Your task to perform on an android device: Show me popular games on the Play Store Image 0: 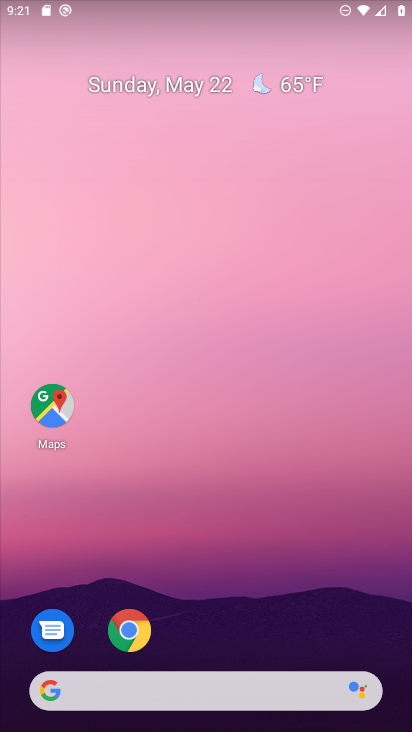
Step 0: press home button
Your task to perform on an android device: Show me popular games on the Play Store Image 1: 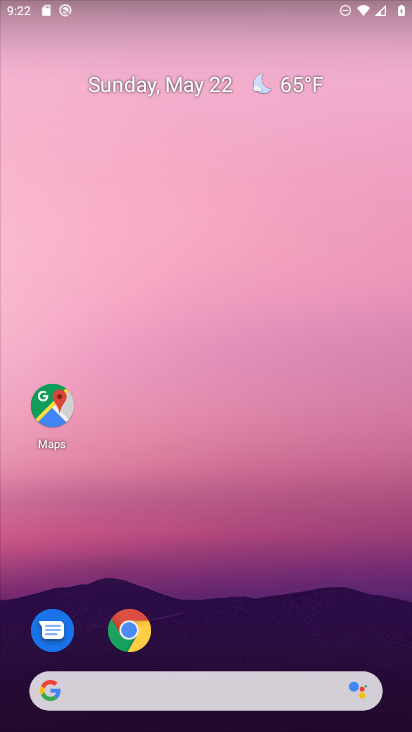
Step 1: drag from (201, 693) to (408, 41)
Your task to perform on an android device: Show me popular games on the Play Store Image 2: 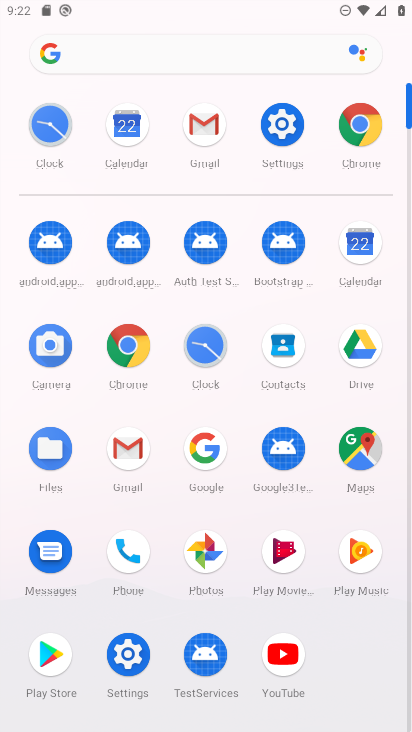
Step 2: click (55, 667)
Your task to perform on an android device: Show me popular games on the Play Store Image 3: 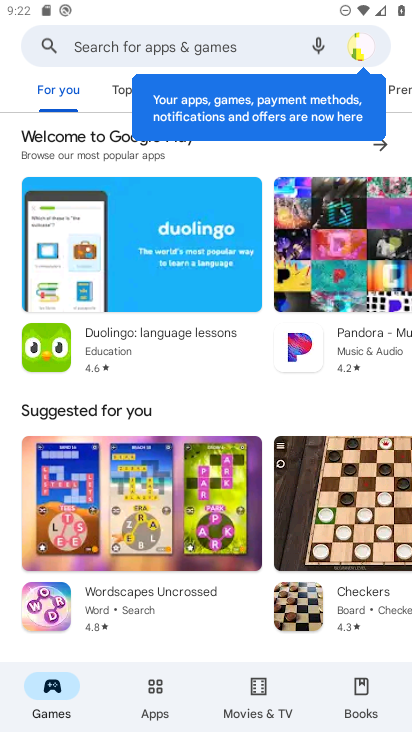
Step 3: drag from (147, 586) to (407, 185)
Your task to perform on an android device: Show me popular games on the Play Store Image 4: 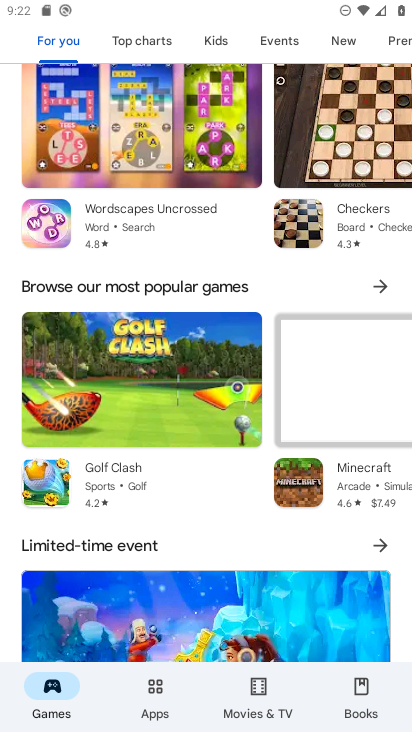
Step 4: click (238, 290)
Your task to perform on an android device: Show me popular games on the Play Store Image 5: 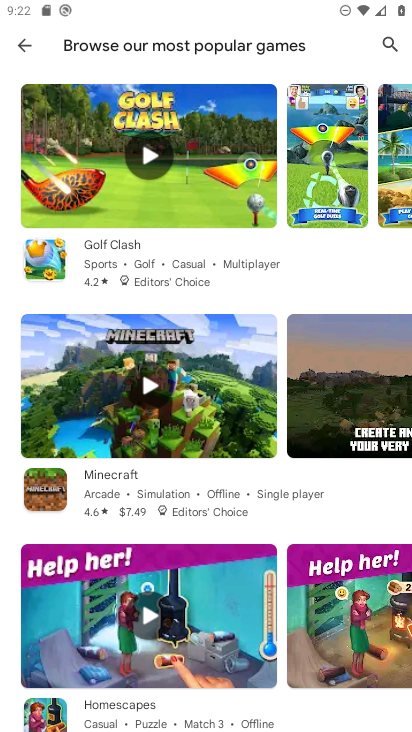
Step 5: task complete